Your task to perform on an android device: add a contact in the contacts app Image 0: 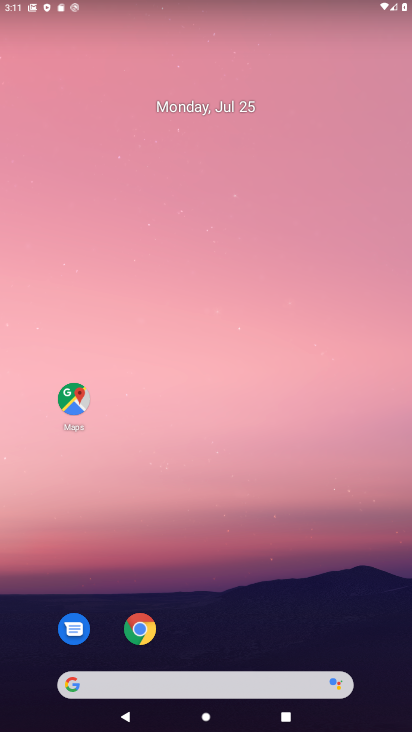
Step 0: drag from (157, 679) to (224, 173)
Your task to perform on an android device: add a contact in the contacts app Image 1: 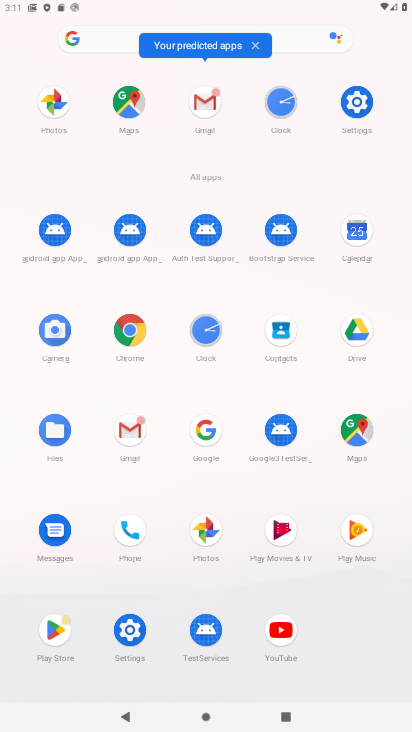
Step 1: click (284, 332)
Your task to perform on an android device: add a contact in the contacts app Image 2: 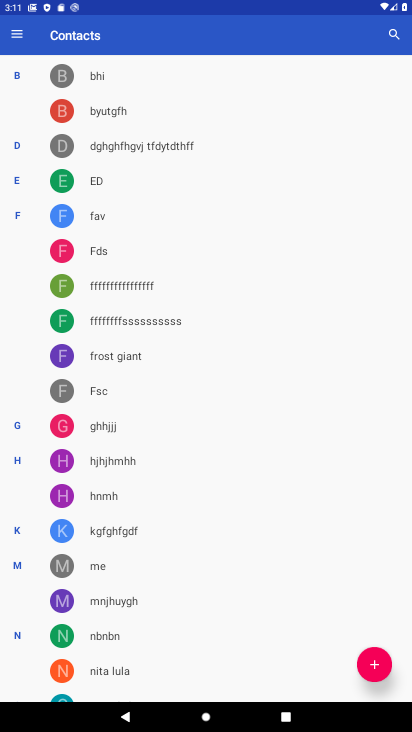
Step 2: click (381, 652)
Your task to perform on an android device: add a contact in the contacts app Image 3: 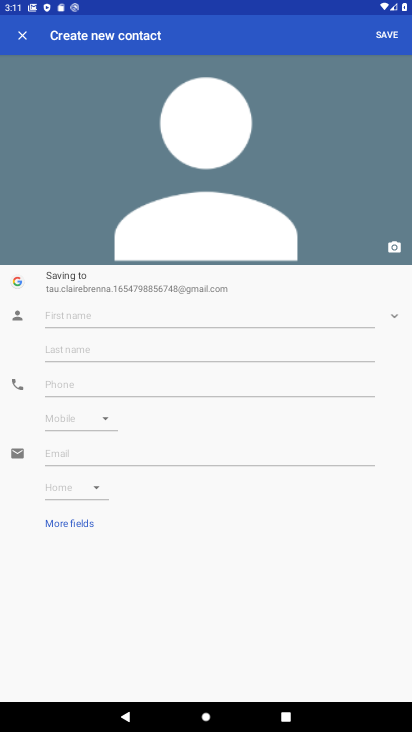
Step 3: type "tammana"
Your task to perform on an android device: add a contact in the contacts app Image 4: 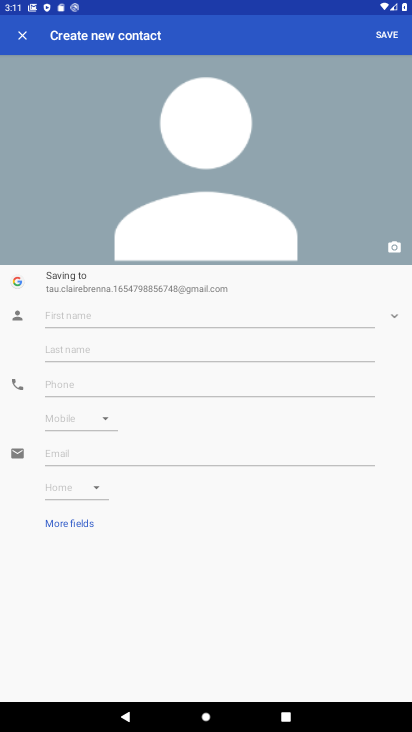
Step 4: click (120, 320)
Your task to perform on an android device: add a contact in the contacts app Image 5: 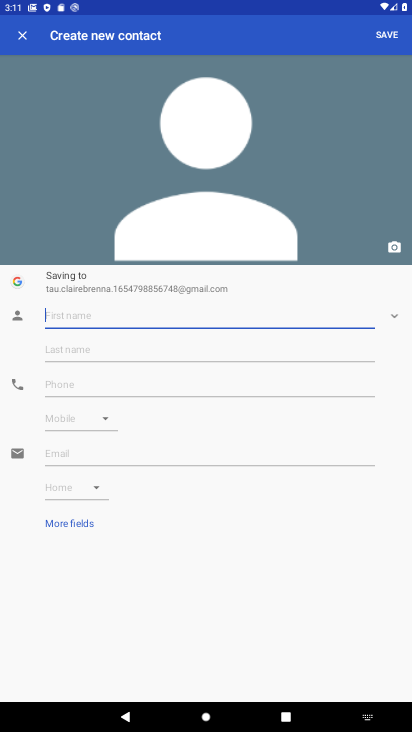
Step 5: type "tamanna"
Your task to perform on an android device: add a contact in the contacts app Image 6: 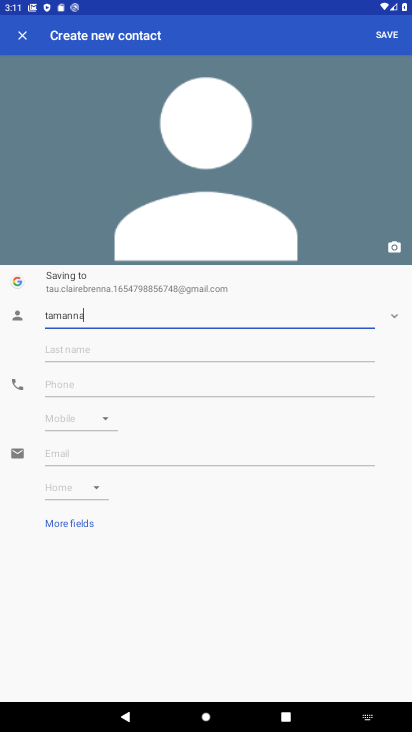
Step 6: click (253, 391)
Your task to perform on an android device: add a contact in the contacts app Image 7: 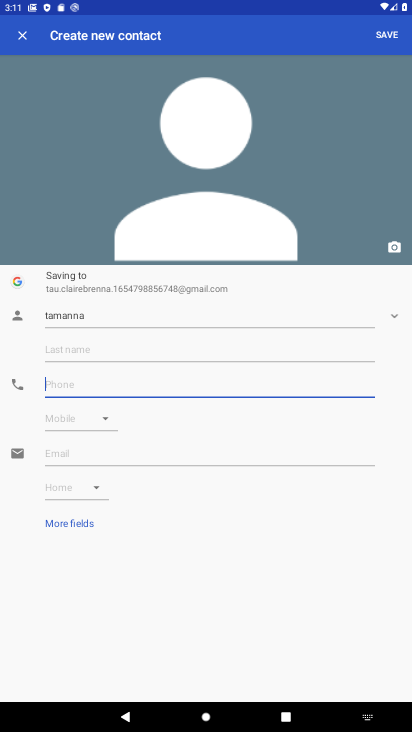
Step 7: type "9087678987"
Your task to perform on an android device: add a contact in the contacts app Image 8: 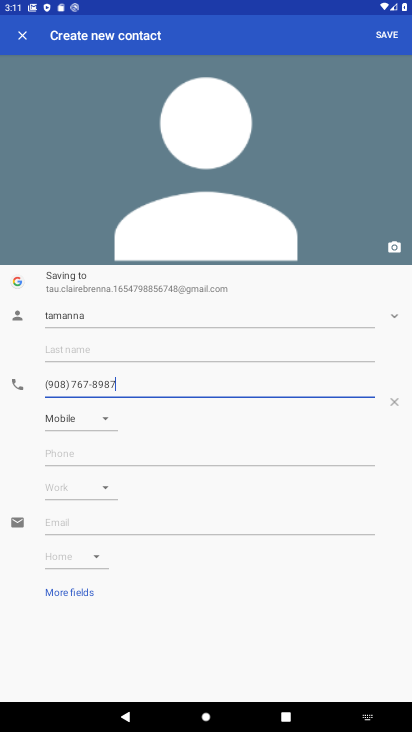
Step 8: click (375, 34)
Your task to perform on an android device: add a contact in the contacts app Image 9: 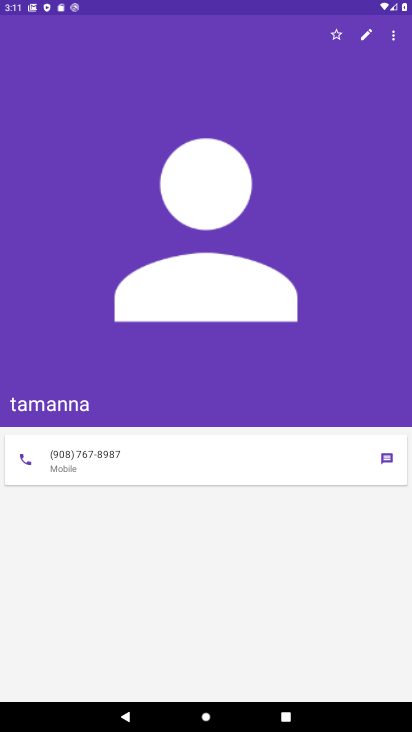
Step 9: task complete